Your task to perform on an android device: Open Google Maps Image 0: 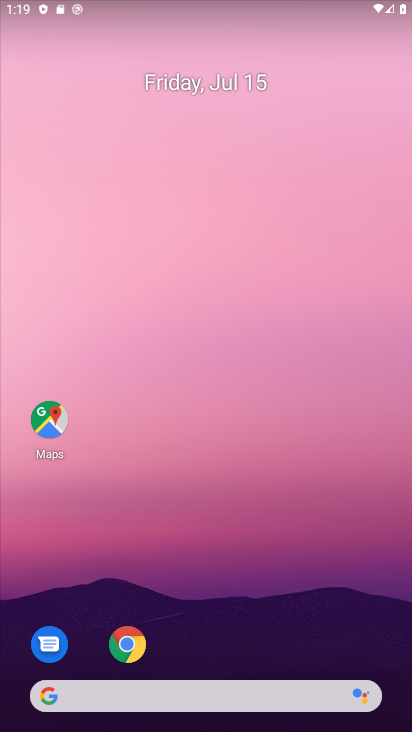
Step 0: drag from (390, 661) to (6, 432)
Your task to perform on an android device: Open Google Maps Image 1: 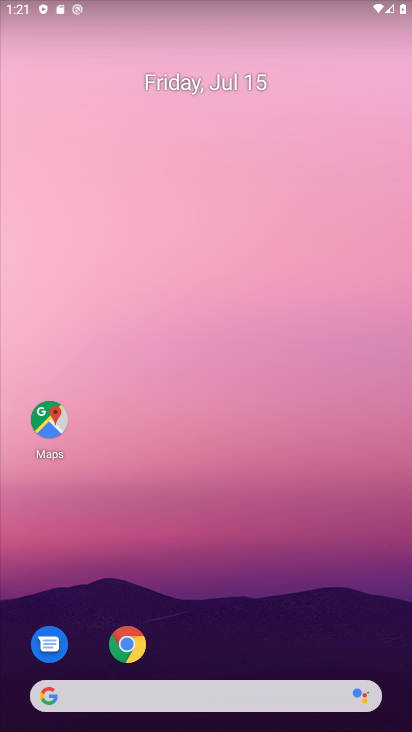
Step 1: drag from (396, 656) to (328, 20)
Your task to perform on an android device: Open Google Maps Image 2: 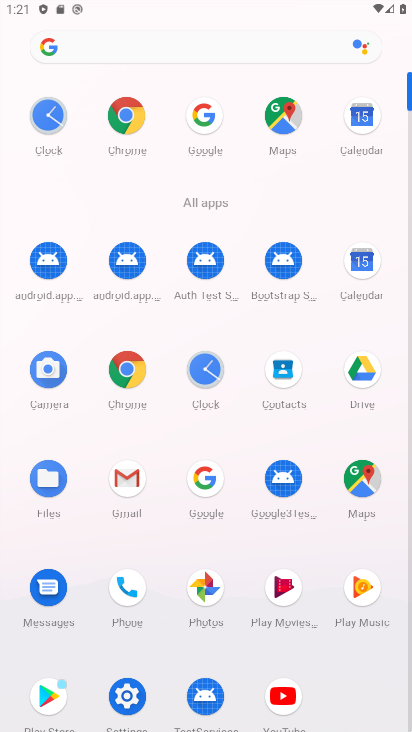
Step 2: click (361, 486)
Your task to perform on an android device: Open Google Maps Image 3: 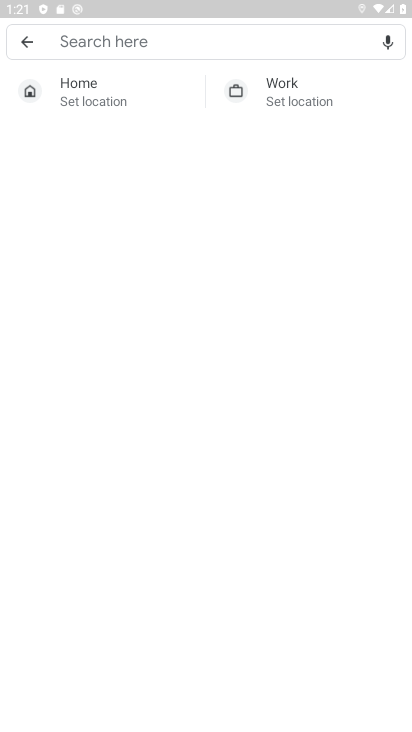
Step 3: task complete